Your task to perform on an android device: choose inbox layout in the gmail app Image 0: 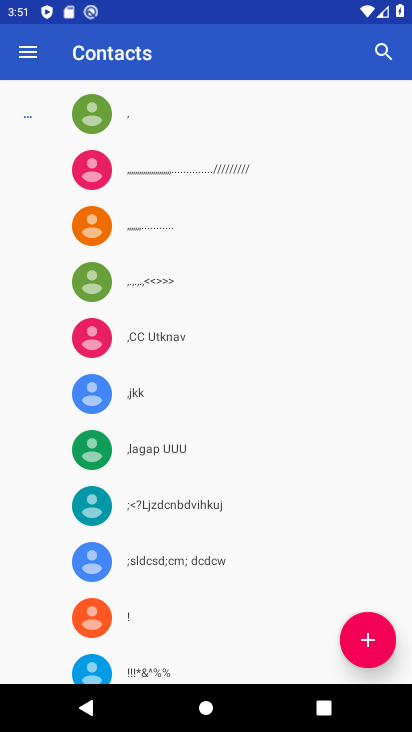
Step 0: press home button
Your task to perform on an android device: choose inbox layout in the gmail app Image 1: 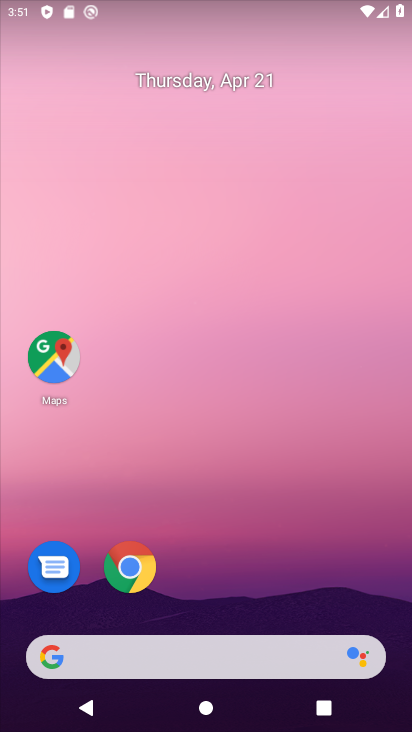
Step 1: drag from (230, 616) to (233, 17)
Your task to perform on an android device: choose inbox layout in the gmail app Image 2: 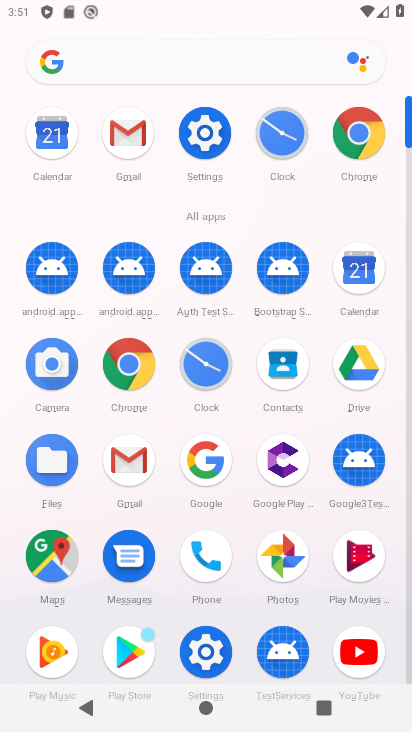
Step 2: click (132, 457)
Your task to perform on an android device: choose inbox layout in the gmail app Image 3: 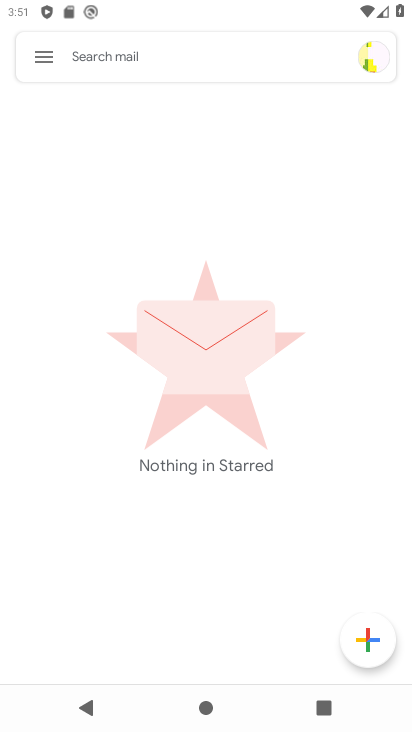
Step 3: click (36, 55)
Your task to perform on an android device: choose inbox layout in the gmail app Image 4: 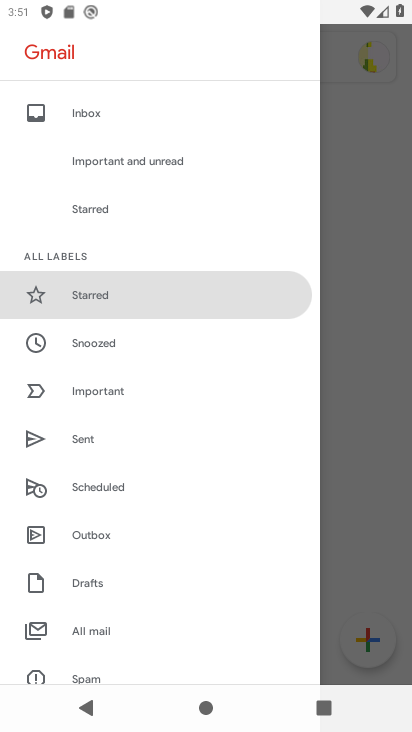
Step 4: click (131, 479)
Your task to perform on an android device: choose inbox layout in the gmail app Image 5: 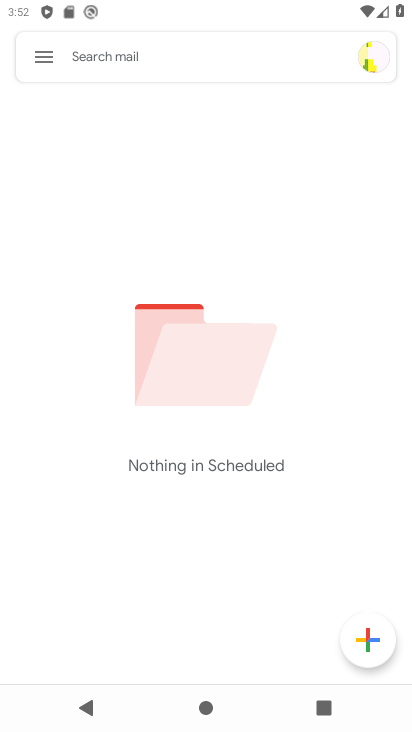
Step 5: click (52, 53)
Your task to perform on an android device: choose inbox layout in the gmail app Image 6: 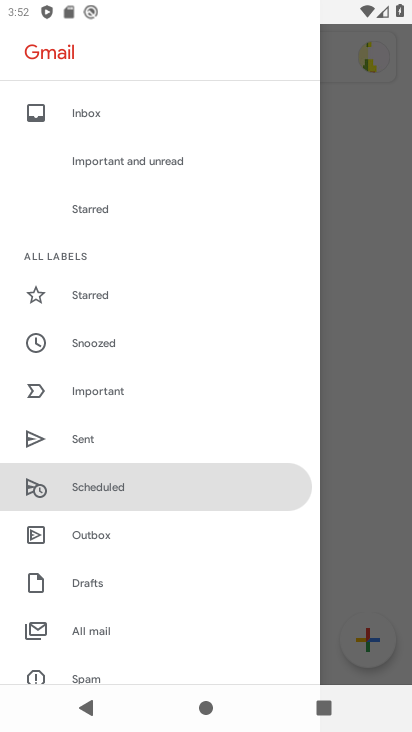
Step 6: drag from (200, 657) to (138, 258)
Your task to perform on an android device: choose inbox layout in the gmail app Image 7: 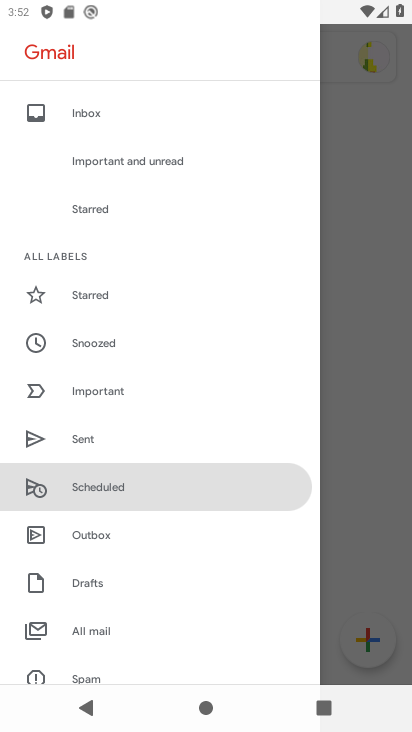
Step 7: drag from (106, 658) to (147, 65)
Your task to perform on an android device: choose inbox layout in the gmail app Image 8: 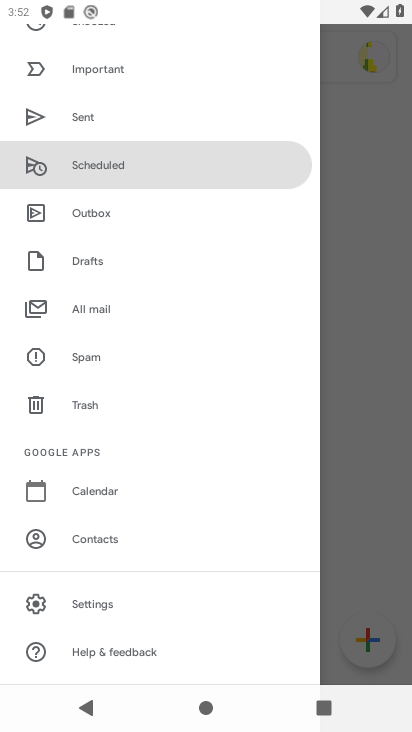
Step 8: click (111, 613)
Your task to perform on an android device: choose inbox layout in the gmail app Image 9: 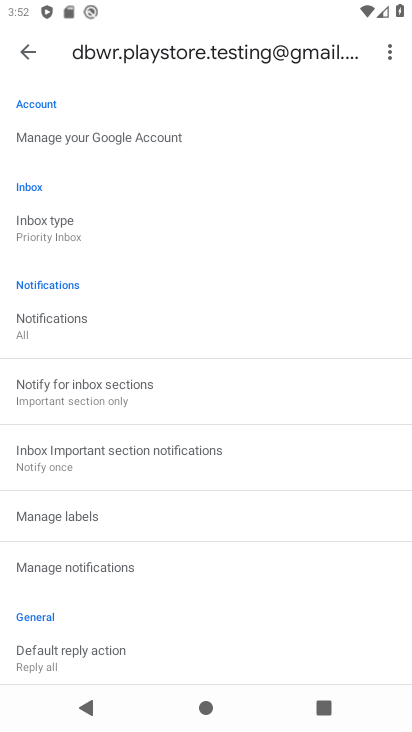
Step 9: click (137, 231)
Your task to perform on an android device: choose inbox layout in the gmail app Image 10: 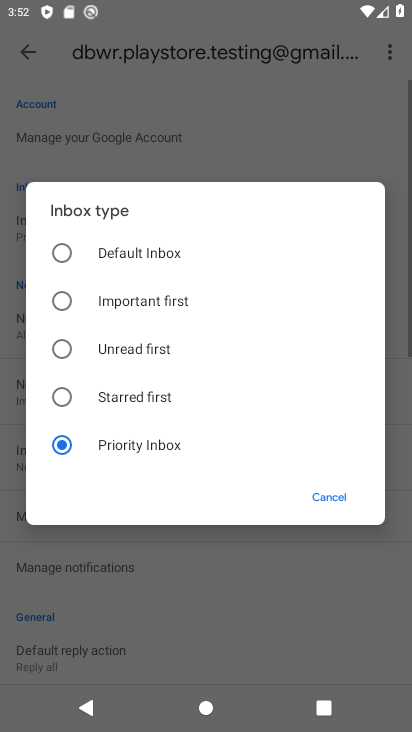
Step 10: click (123, 259)
Your task to perform on an android device: choose inbox layout in the gmail app Image 11: 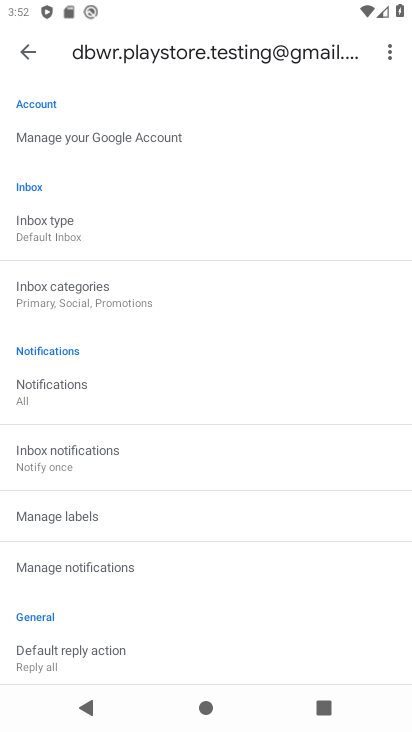
Step 11: task complete